Your task to perform on an android device: Open Google Chrome Image 0: 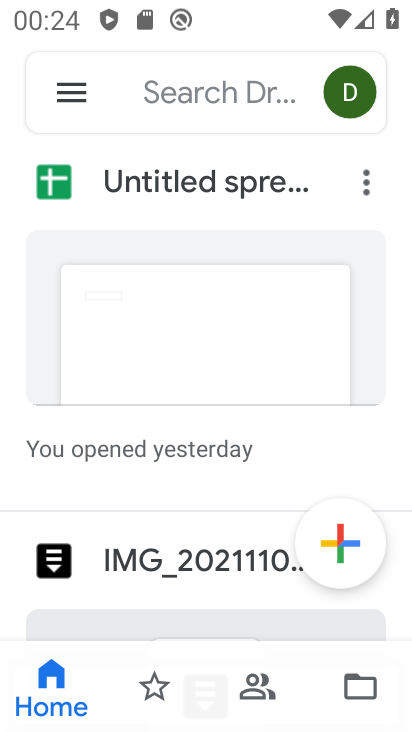
Step 0: press home button
Your task to perform on an android device: Open Google Chrome Image 1: 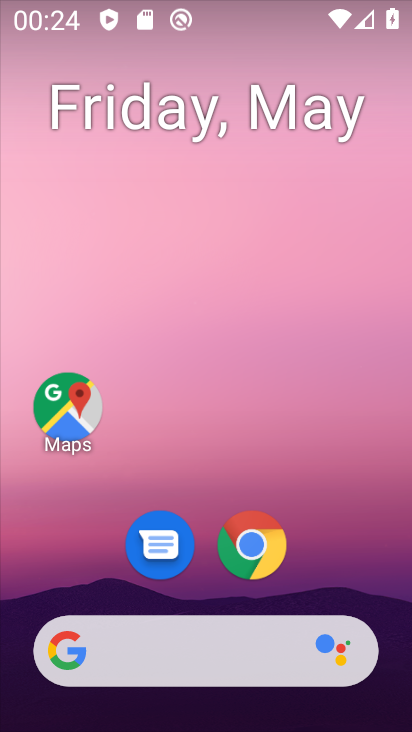
Step 1: click (244, 552)
Your task to perform on an android device: Open Google Chrome Image 2: 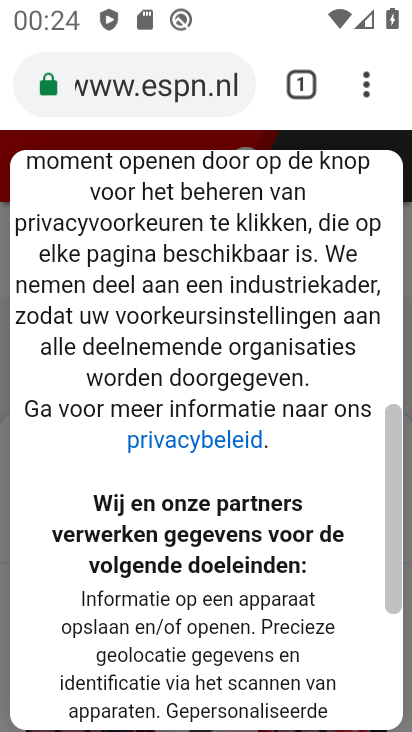
Step 2: task complete